Your task to perform on an android device: Go to calendar. Show me events next week Image 0: 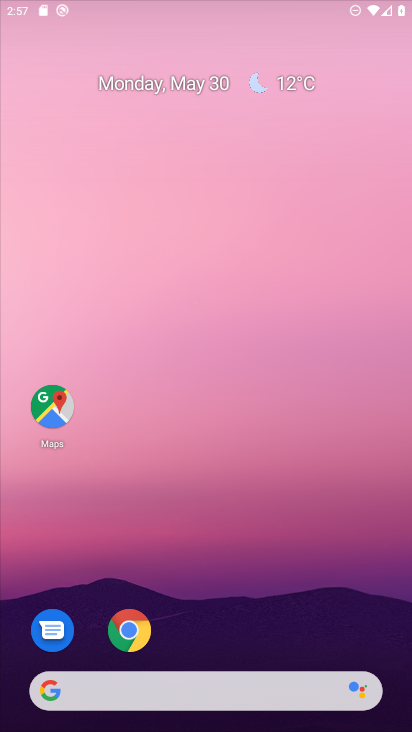
Step 0: drag from (223, 687) to (216, 132)
Your task to perform on an android device: Go to calendar. Show me events next week Image 1: 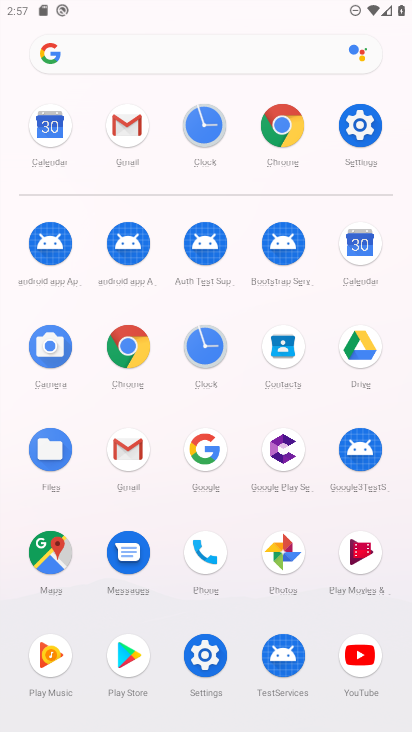
Step 1: click (357, 247)
Your task to perform on an android device: Go to calendar. Show me events next week Image 2: 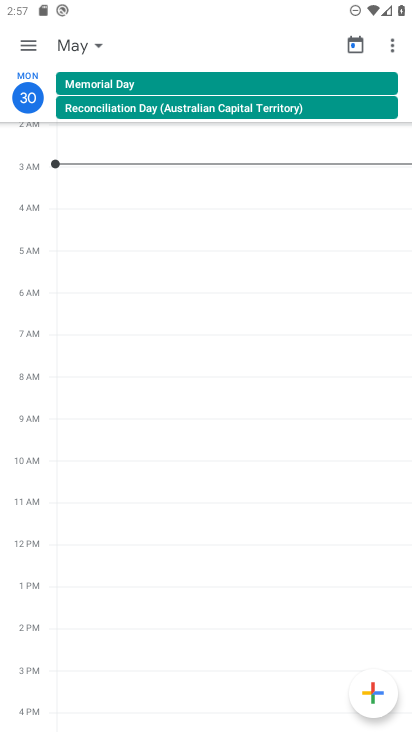
Step 2: click (29, 38)
Your task to perform on an android device: Go to calendar. Show me events next week Image 3: 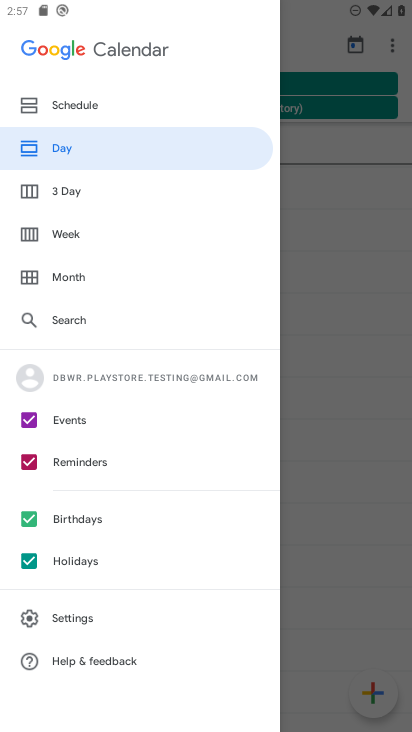
Step 3: click (64, 239)
Your task to perform on an android device: Go to calendar. Show me events next week Image 4: 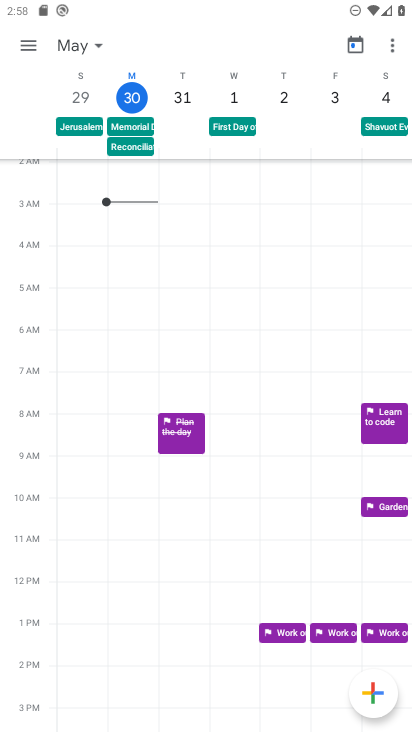
Step 4: task complete